Your task to perform on an android device: allow cookies in the chrome app Image 0: 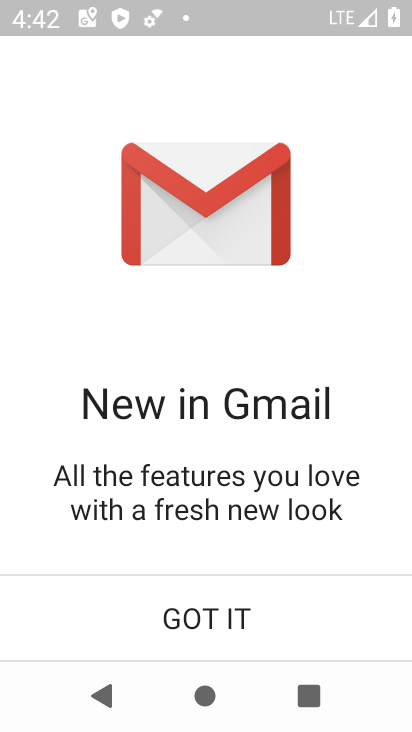
Step 0: press back button
Your task to perform on an android device: allow cookies in the chrome app Image 1: 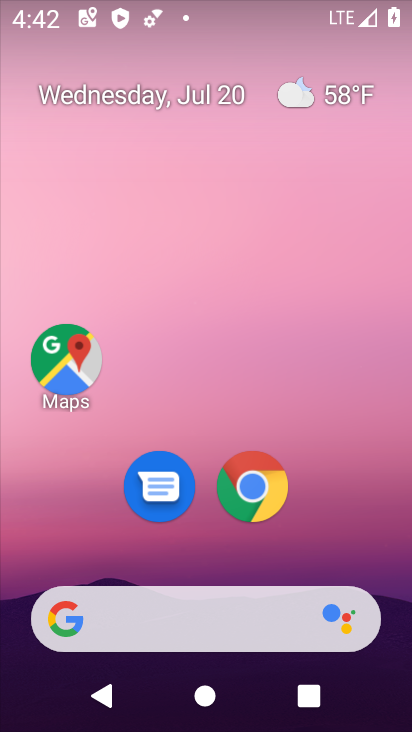
Step 1: click (245, 475)
Your task to perform on an android device: allow cookies in the chrome app Image 2: 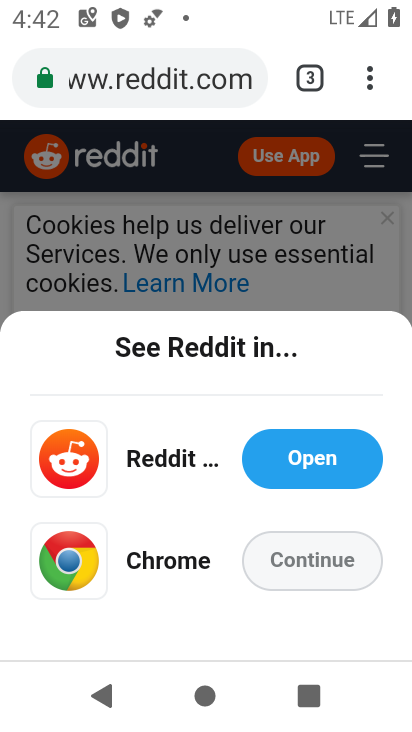
Step 2: drag from (366, 85) to (116, 552)
Your task to perform on an android device: allow cookies in the chrome app Image 3: 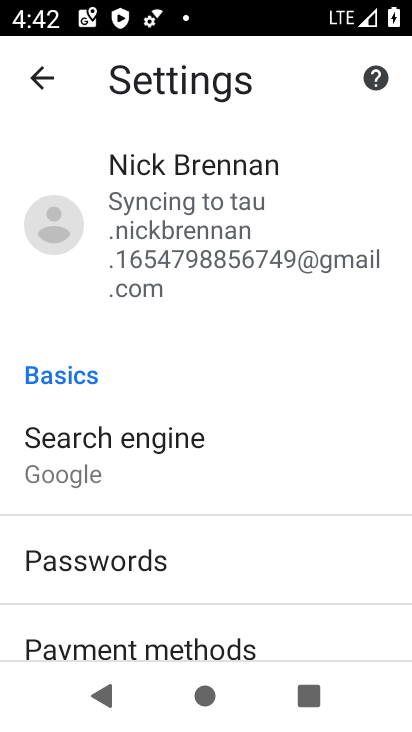
Step 3: drag from (106, 594) to (230, 67)
Your task to perform on an android device: allow cookies in the chrome app Image 4: 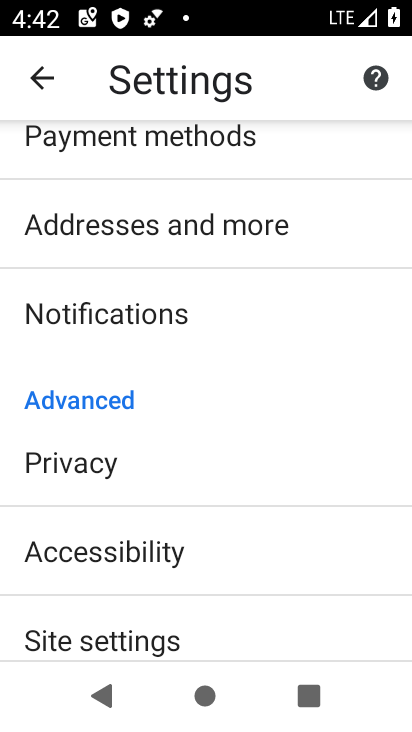
Step 4: drag from (117, 596) to (216, 154)
Your task to perform on an android device: allow cookies in the chrome app Image 5: 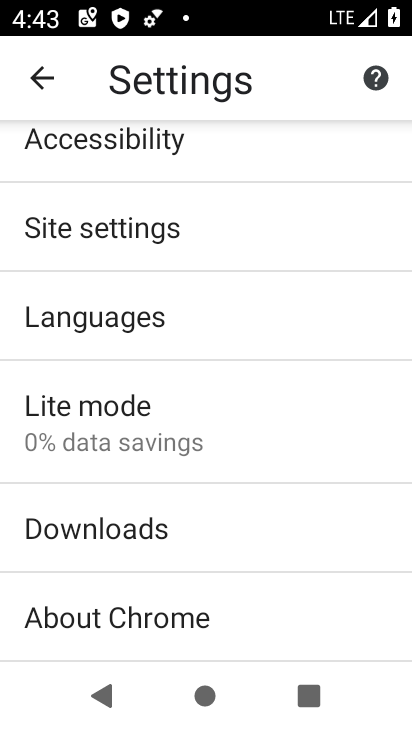
Step 5: click (144, 236)
Your task to perform on an android device: allow cookies in the chrome app Image 6: 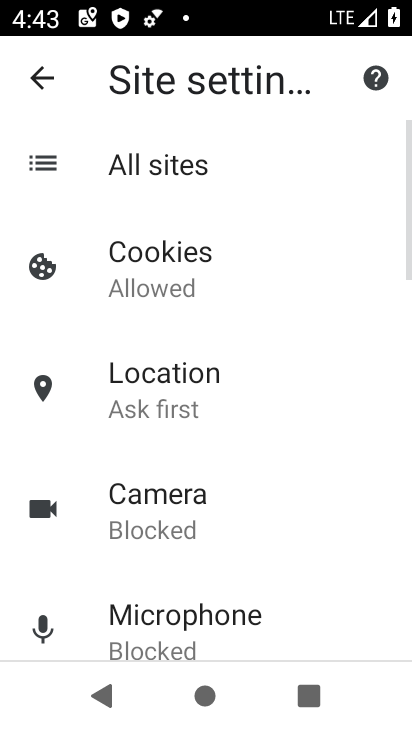
Step 6: click (167, 274)
Your task to perform on an android device: allow cookies in the chrome app Image 7: 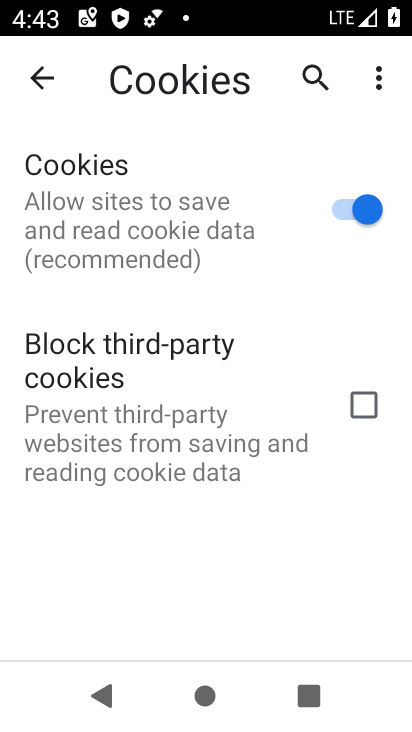
Step 7: task complete